Your task to perform on an android device: Open the web browser Image 0: 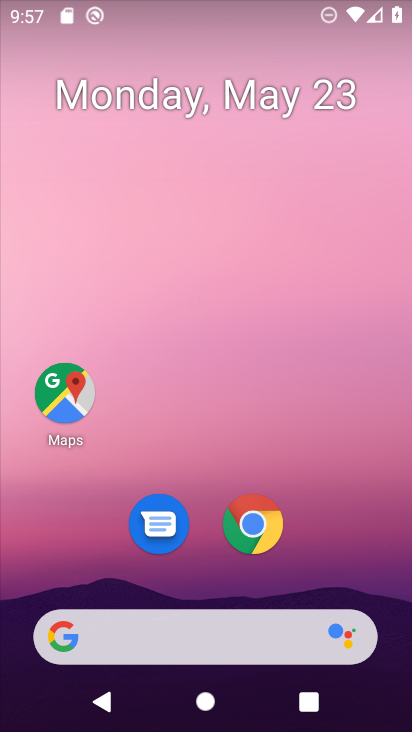
Step 0: click (248, 513)
Your task to perform on an android device: Open the web browser Image 1: 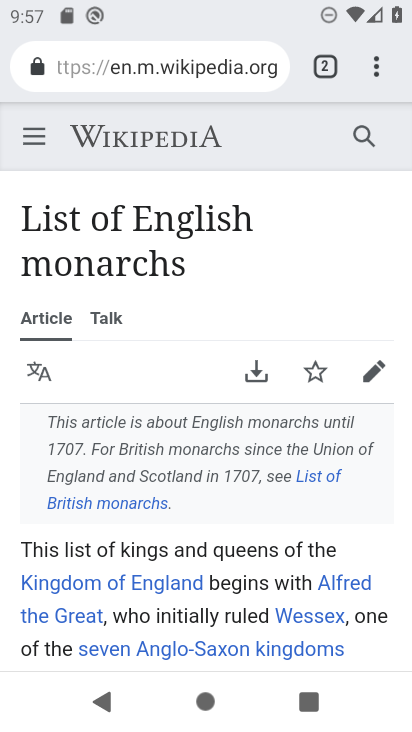
Step 1: click (378, 68)
Your task to perform on an android device: Open the web browser Image 2: 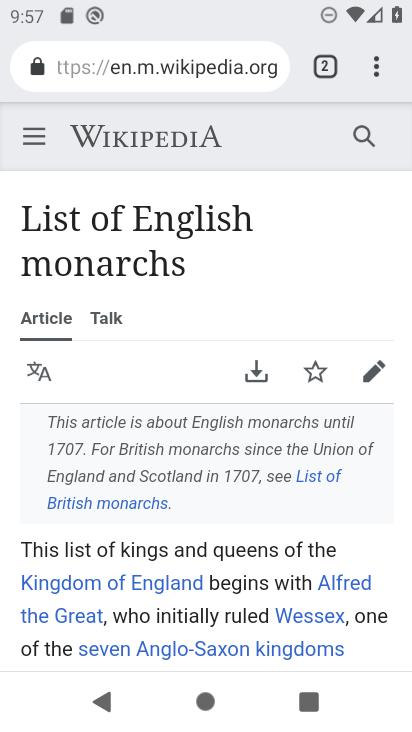
Step 2: click (378, 68)
Your task to perform on an android device: Open the web browser Image 3: 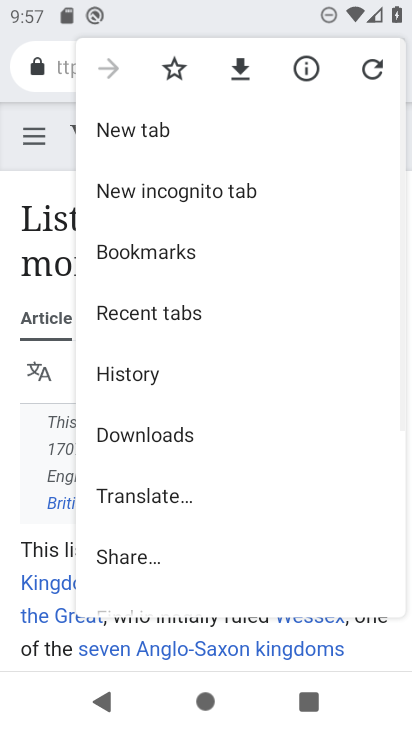
Step 3: click (296, 128)
Your task to perform on an android device: Open the web browser Image 4: 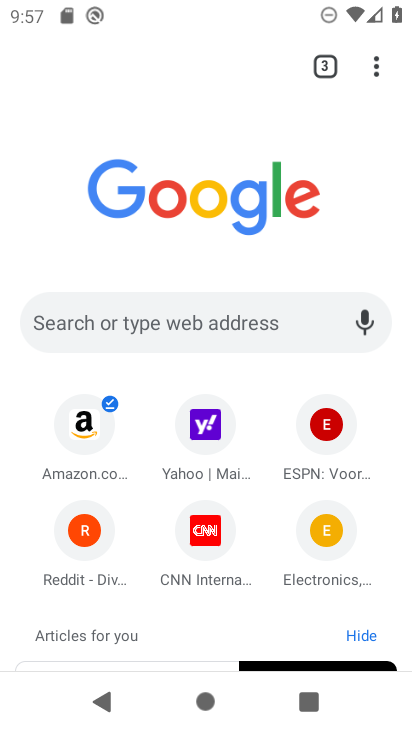
Step 4: task complete